Your task to perform on an android device: set the stopwatch Image 0: 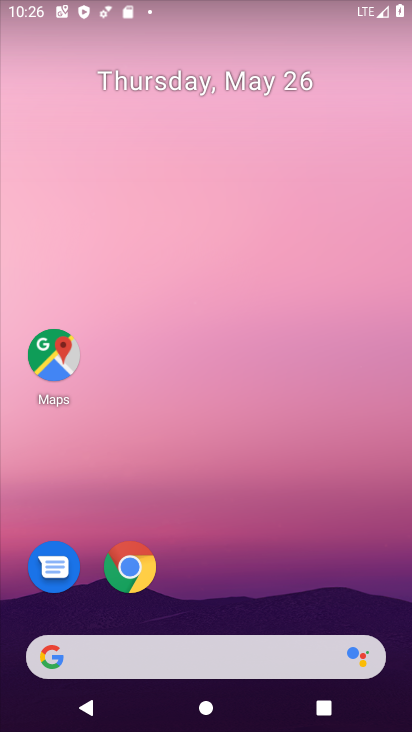
Step 0: drag from (259, 660) to (402, 40)
Your task to perform on an android device: set the stopwatch Image 1: 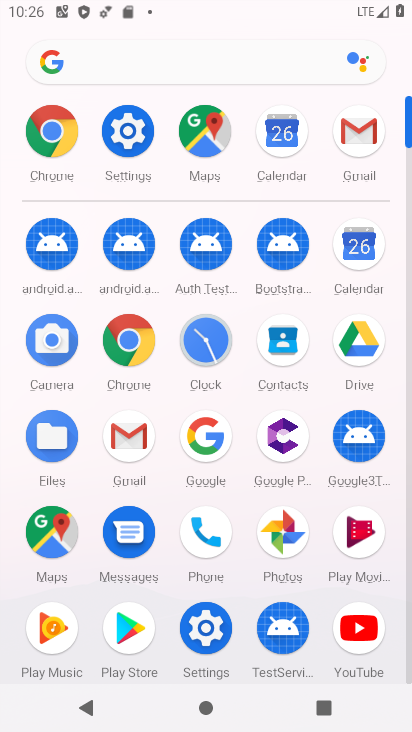
Step 1: click (208, 354)
Your task to perform on an android device: set the stopwatch Image 2: 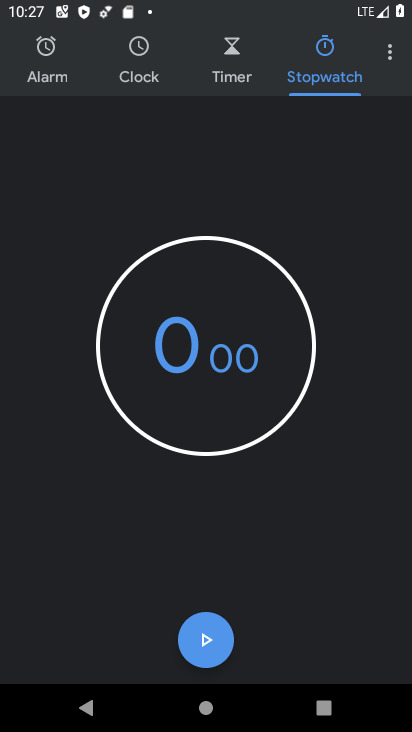
Step 2: task complete